Your task to perform on an android device: Open Google Maps Image 0: 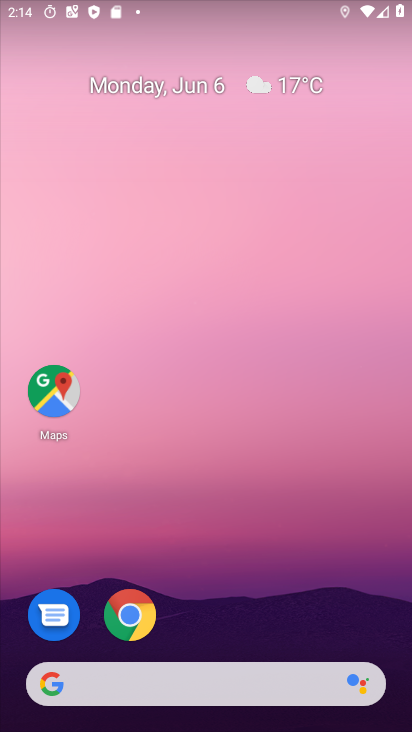
Step 0: click (282, 135)
Your task to perform on an android device: Open Google Maps Image 1: 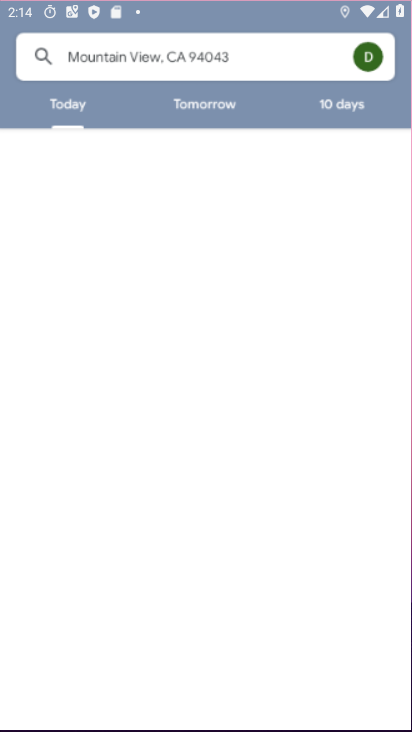
Step 1: drag from (208, 522) to (316, 32)
Your task to perform on an android device: Open Google Maps Image 2: 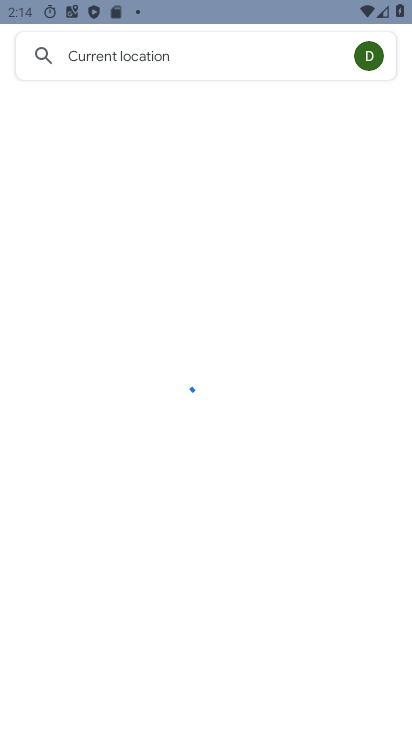
Step 2: press home button
Your task to perform on an android device: Open Google Maps Image 3: 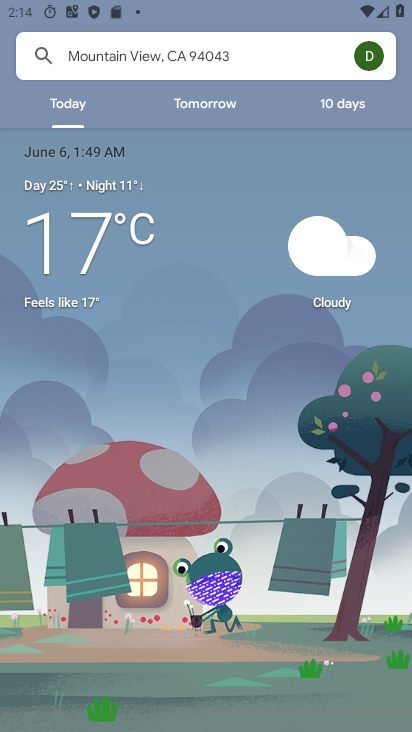
Step 3: press home button
Your task to perform on an android device: Open Google Maps Image 4: 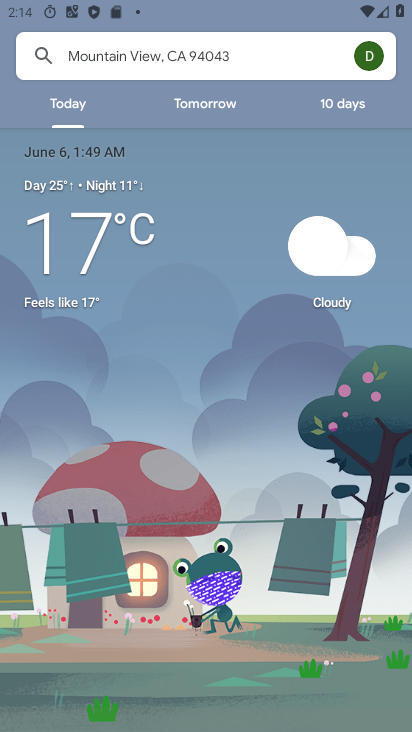
Step 4: click (234, 287)
Your task to perform on an android device: Open Google Maps Image 5: 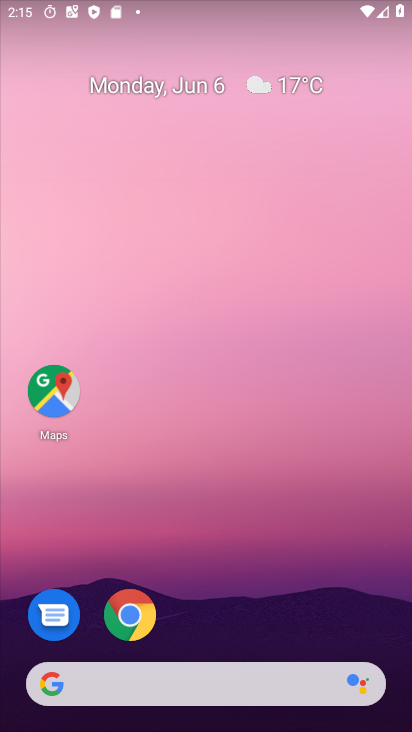
Step 5: drag from (198, 601) to (306, 119)
Your task to perform on an android device: Open Google Maps Image 6: 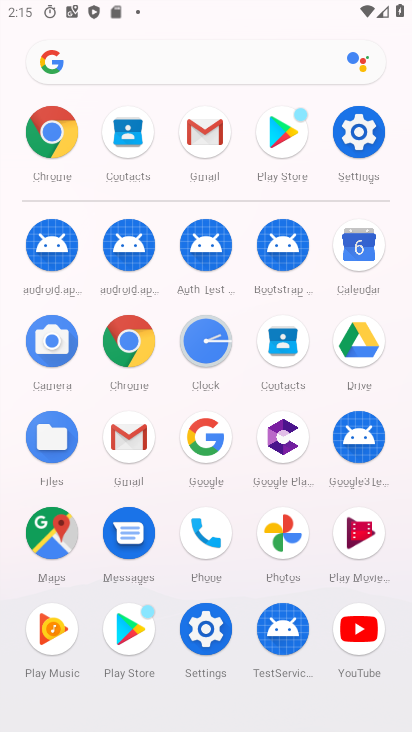
Step 6: click (47, 541)
Your task to perform on an android device: Open Google Maps Image 7: 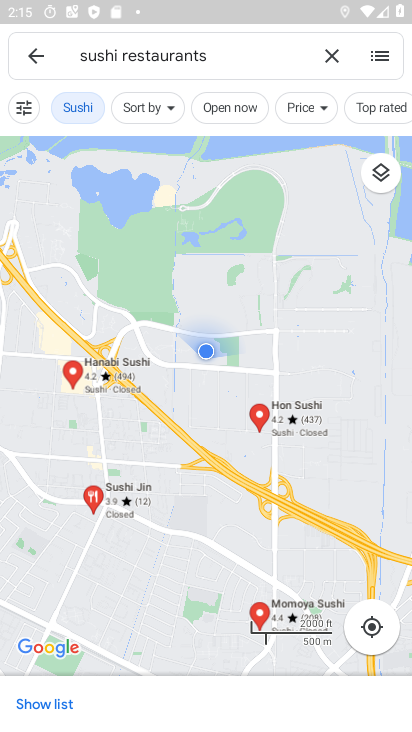
Step 7: task complete